Your task to perform on an android device: star an email in the gmail app Image 0: 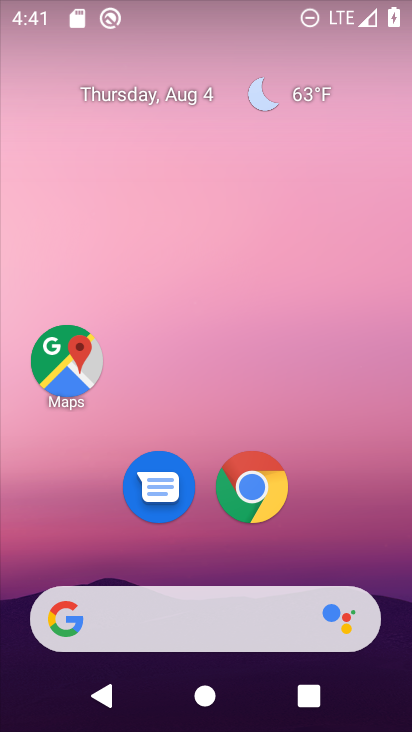
Step 0: drag from (105, 530) to (246, 1)
Your task to perform on an android device: star an email in the gmail app Image 1: 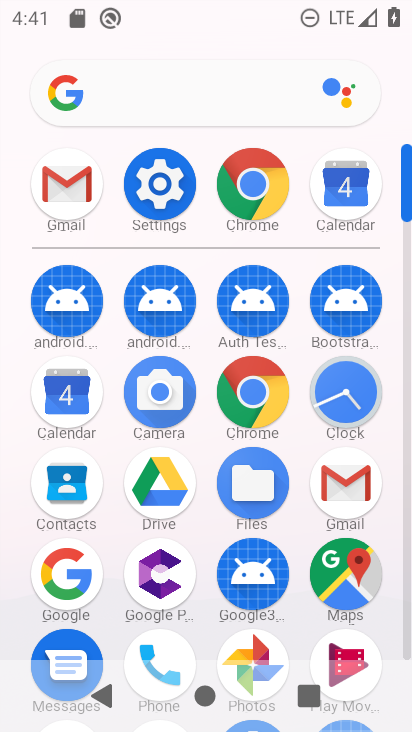
Step 1: click (78, 188)
Your task to perform on an android device: star an email in the gmail app Image 2: 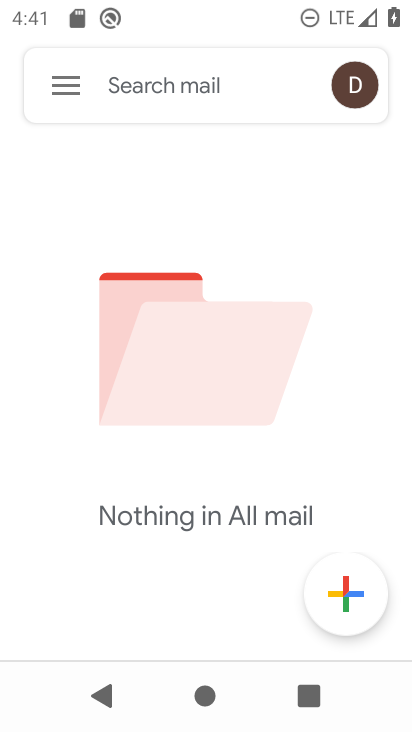
Step 2: click (59, 76)
Your task to perform on an android device: star an email in the gmail app Image 3: 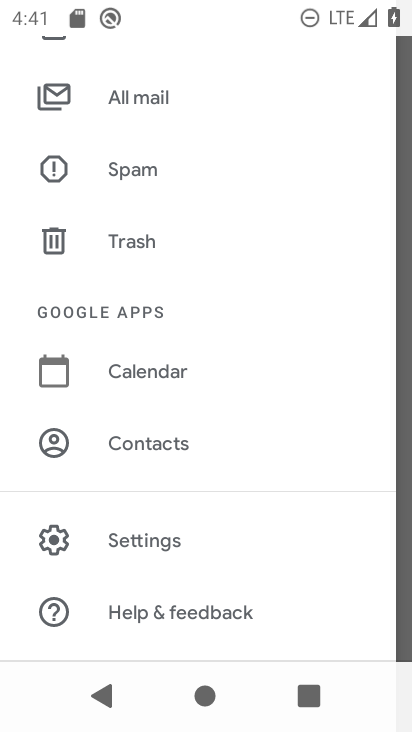
Step 3: drag from (174, 171) to (171, 588)
Your task to perform on an android device: star an email in the gmail app Image 4: 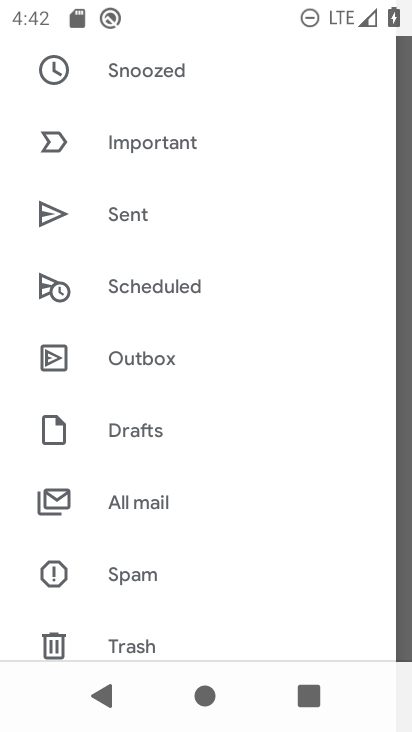
Step 4: click (101, 491)
Your task to perform on an android device: star an email in the gmail app Image 5: 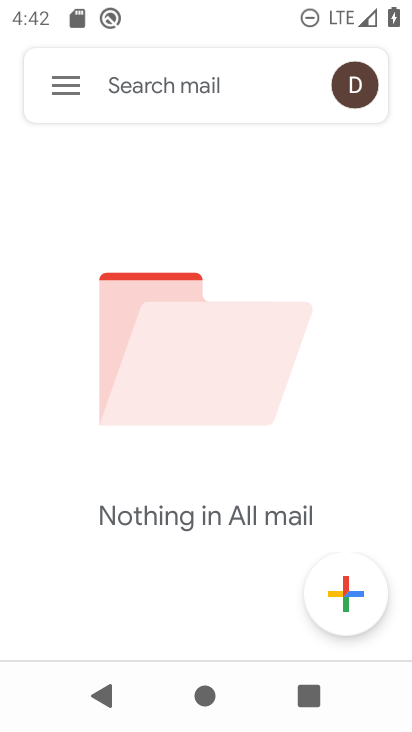
Step 5: task complete